Your task to perform on an android device: stop showing notifications on the lock screen Image 0: 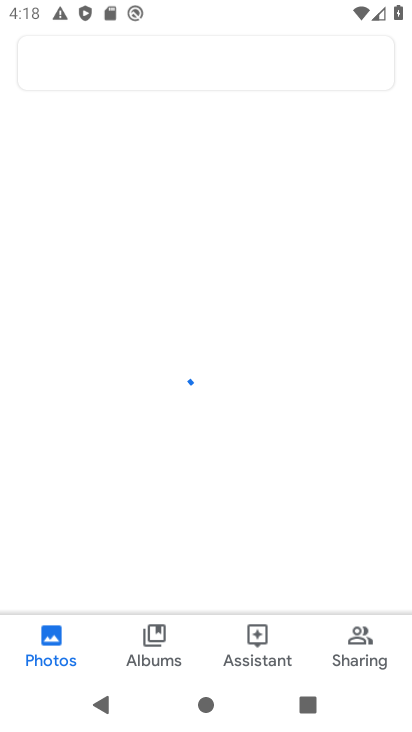
Step 0: press back button
Your task to perform on an android device: stop showing notifications on the lock screen Image 1: 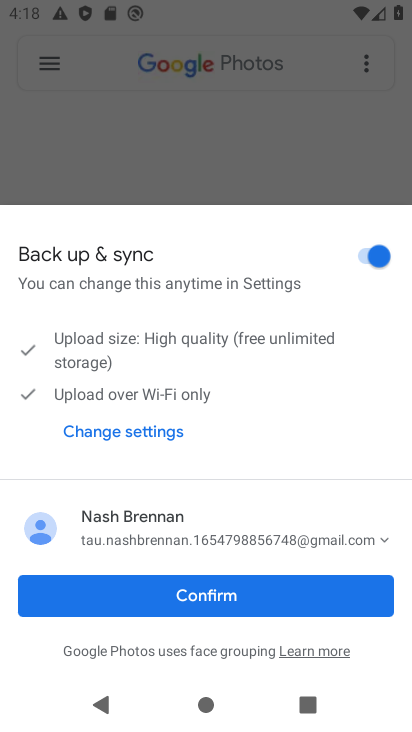
Step 1: press home button
Your task to perform on an android device: stop showing notifications on the lock screen Image 2: 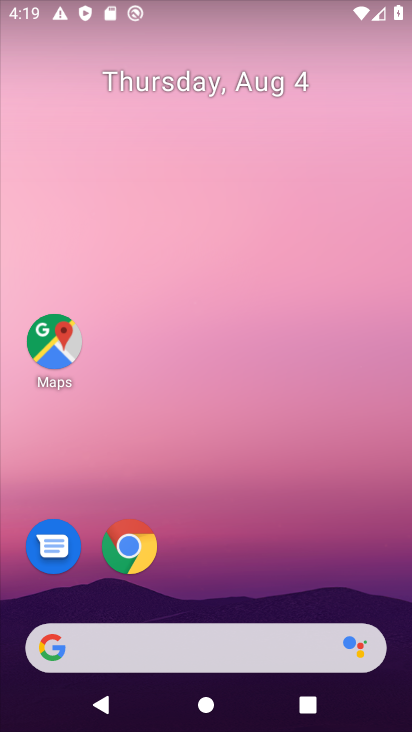
Step 2: drag from (204, 485) to (222, 71)
Your task to perform on an android device: stop showing notifications on the lock screen Image 3: 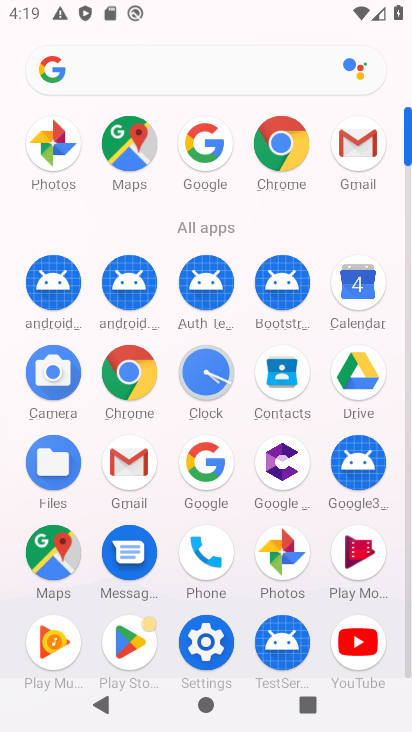
Step 3: click (204, 641)
Your task to perform on an android device: stop showing notifications on the lock screen Image 4: 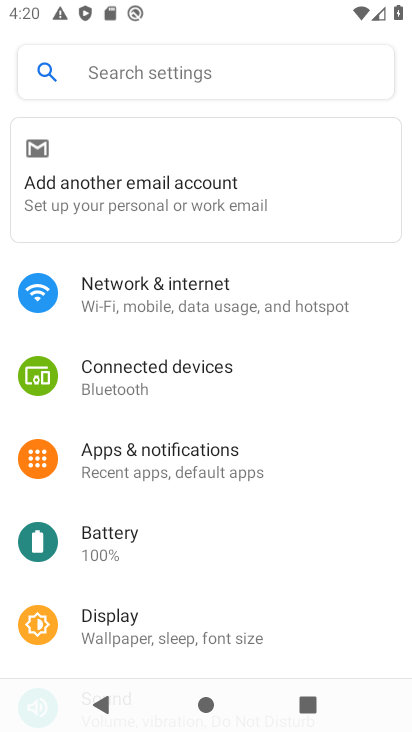
Step 4: click (192, 461)
Your task to perform on an android device: stop showing notifications on the lock screen Image 5: 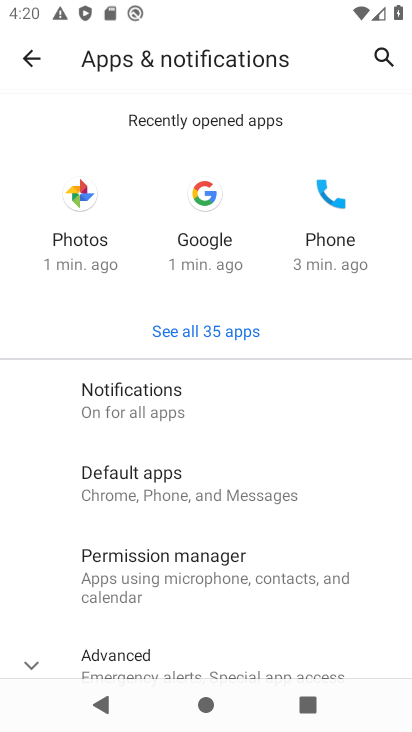
Step 5: click (143, 384)
Your task to perform on an android device: stop showing notifications on the lock screen Image 6: 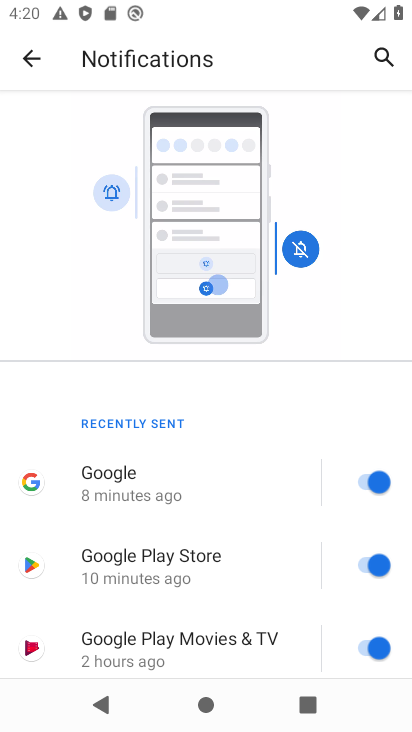
Step 6: drag from (197, 557) to (199, 206)
Your task to perform on an android device: stop showing notifications on the lock screen Image 7: 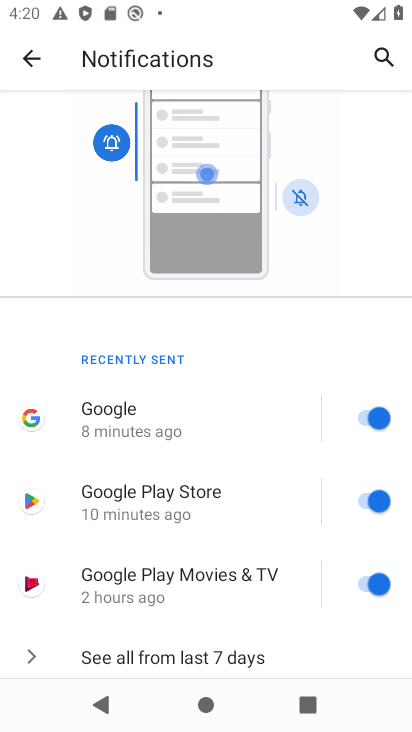
Step 7: click (229, 230)
Your task to perform on an android device: stop showing notifications on the lock screen Image 8: 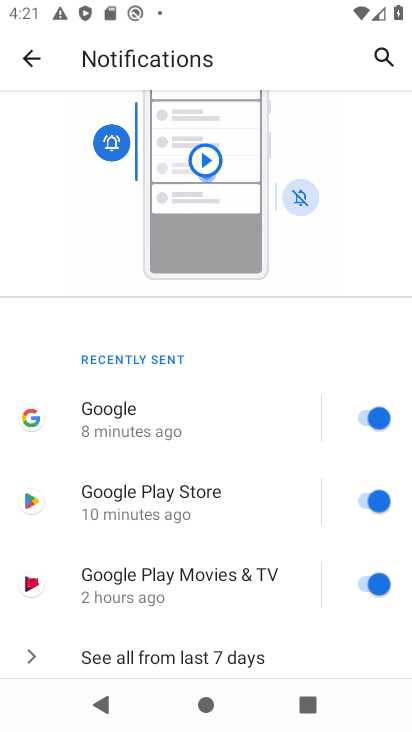
Step 8: drag from (176, 514) to (186, 302)
Your task to perform on an android device: stop showing notifications on the lock screen Image 9: 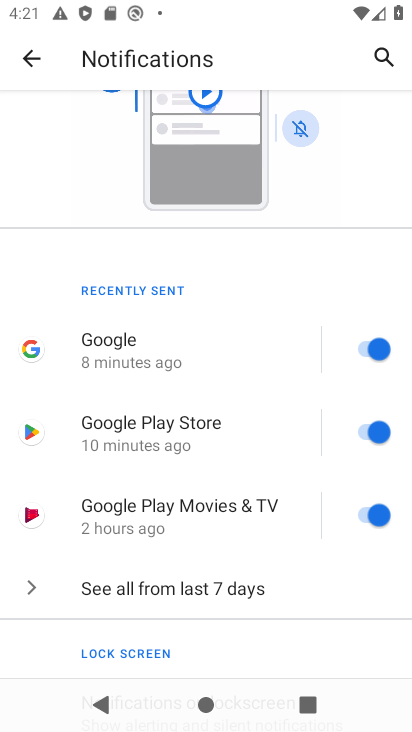
Step 9: click (129, 652)
Your task to perform on an android device: stop showing notifications on the lock screen Image 10: 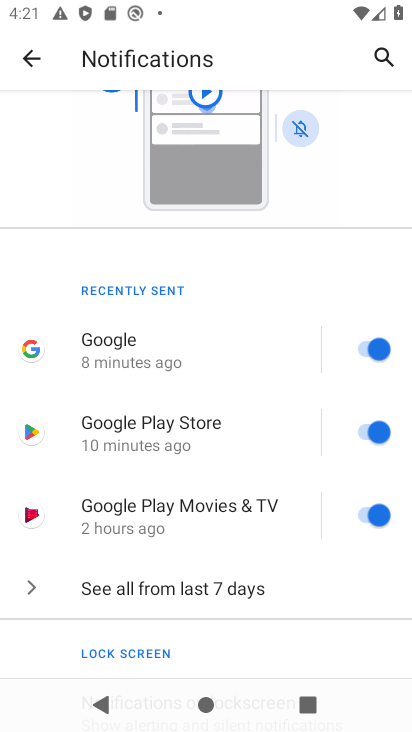
Step 10: drag from (235, 580) to (268, 229)
Your task to perform on an android device: stop showing notifications on the lock screen Image 11: 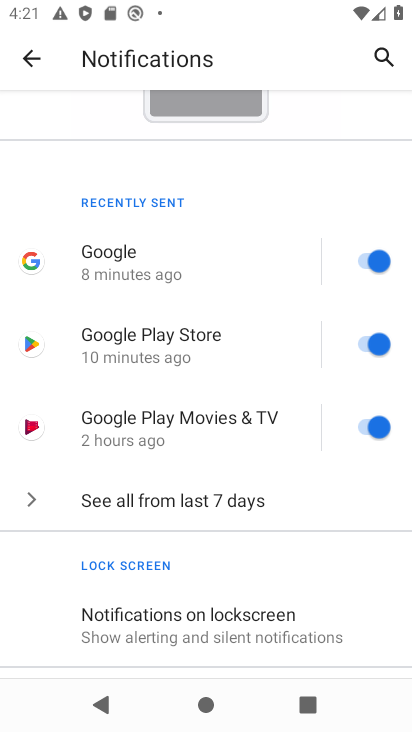
Step 11: click (171, 638)
Your task to perform on an android device: stop showing notifications on the lock screen Image 12: 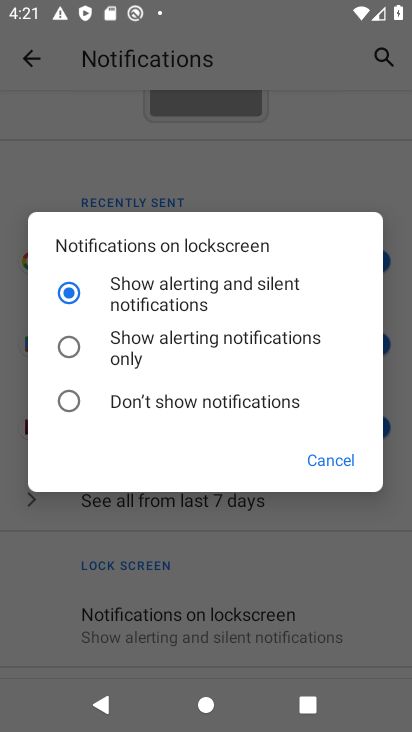
Step 12: click (67, 405)
Your task to perform on an android device: stop showing notifications on the lock screen Image 13: 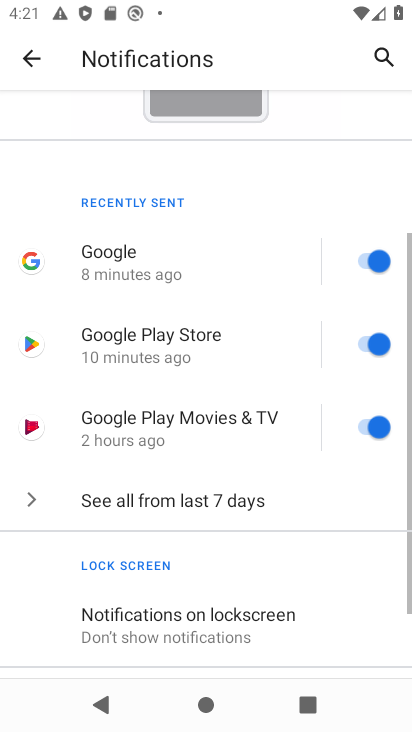
Step 13: task complete